Your task to perform on an android device: toggle sleep mode Image 0: 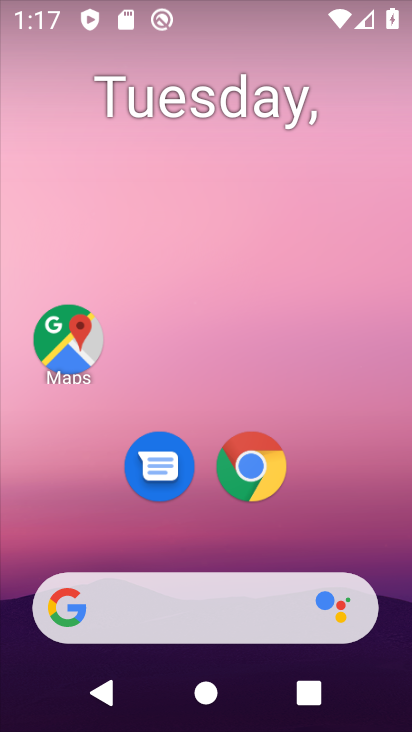
Step 0: task complete